Your task to perform on an android device: Go to privacy settings Image 0: 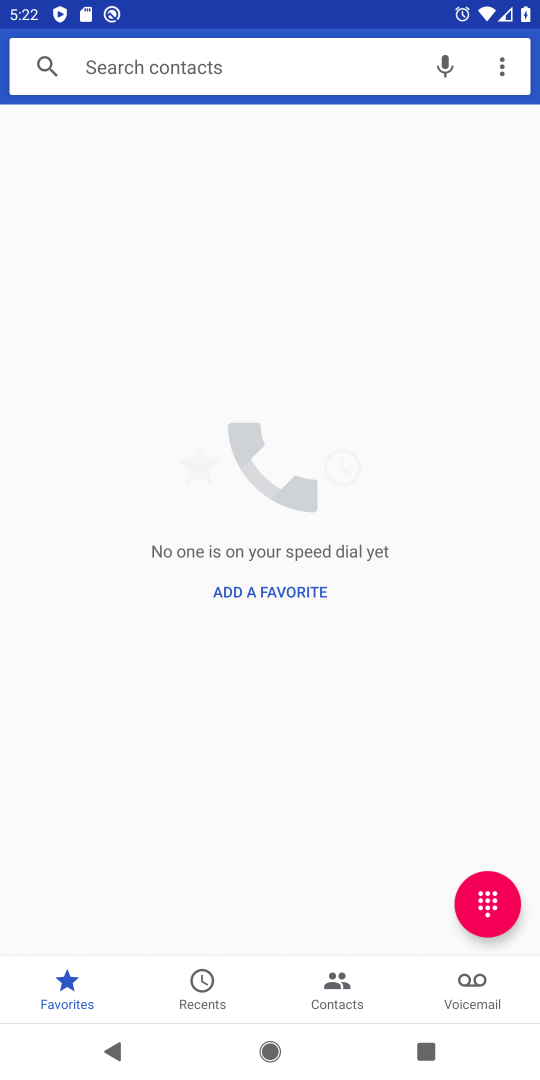
Step 0: press home button
Your task to perform on an android device: Go to privacy settings Image 1: 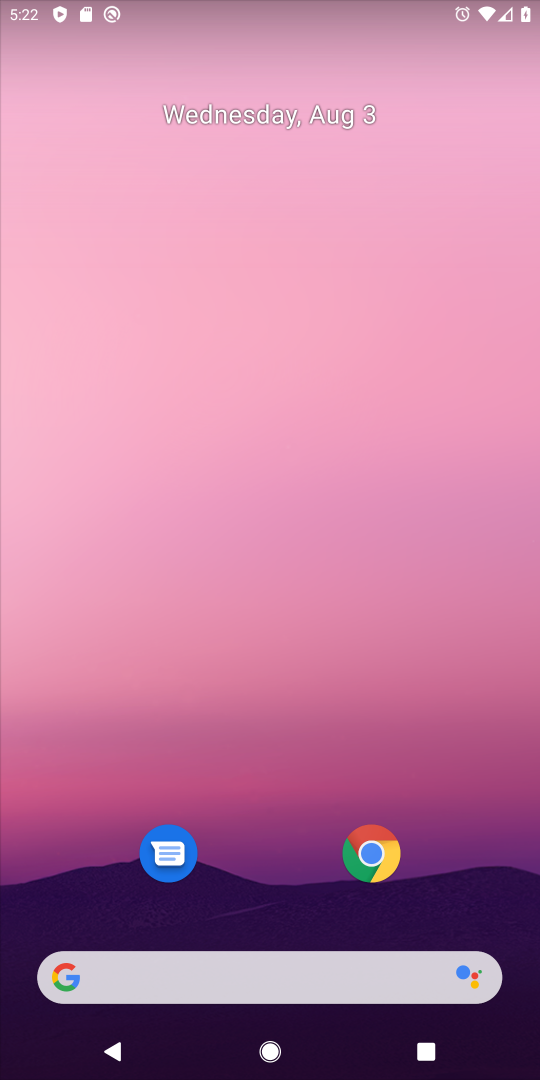
Step 1: drag from (458, 862) to (419, 353)
Your task to perform on an android device: Go to privacy settings Image 2: 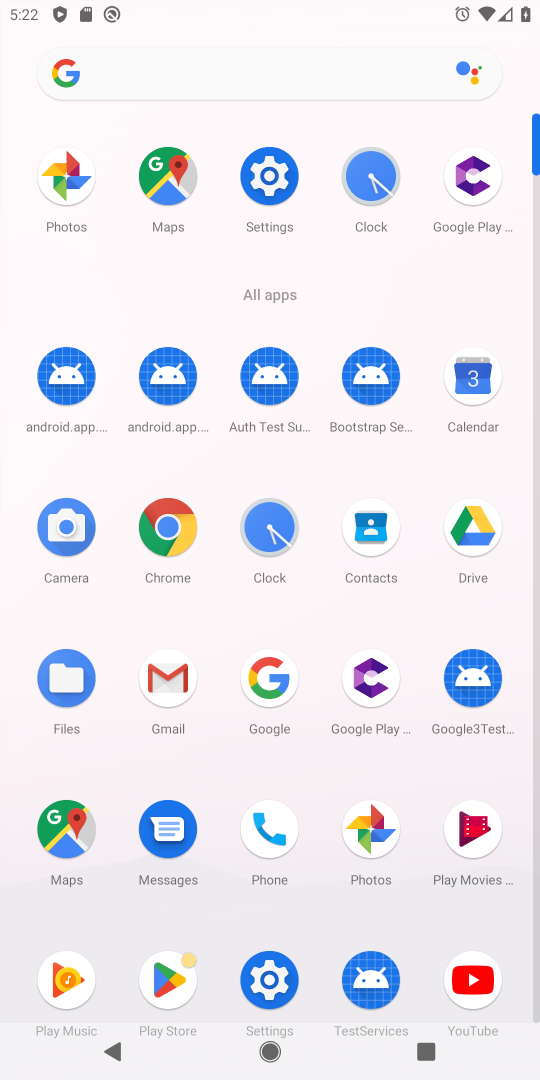
Step 2: click (275, 979)
Your task to perform on an android device: Go to privacy settings Image 3: 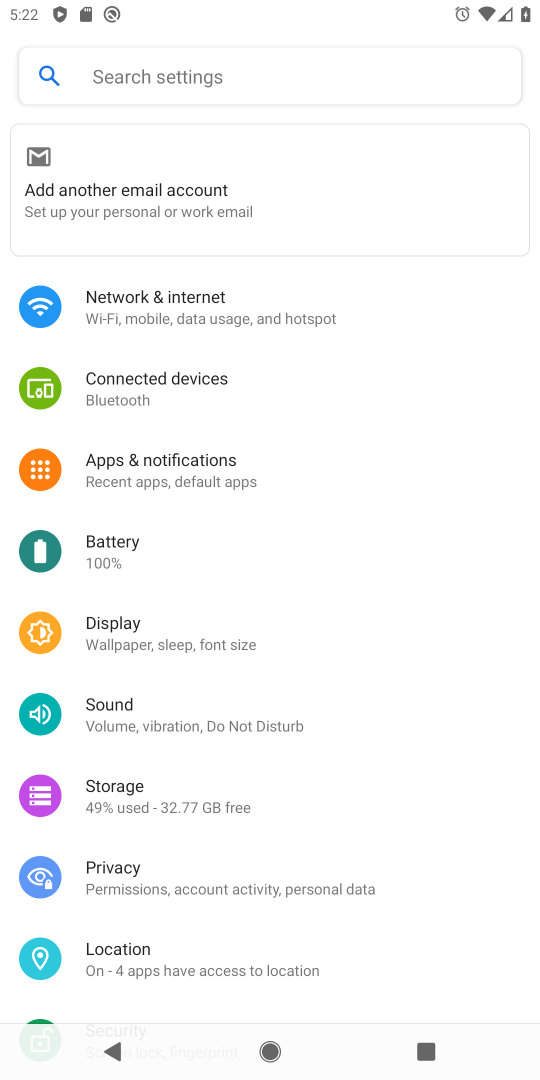
Step 3: click (179, 871)
Your task to perform on an android device: Go to privacy settings Image 4: 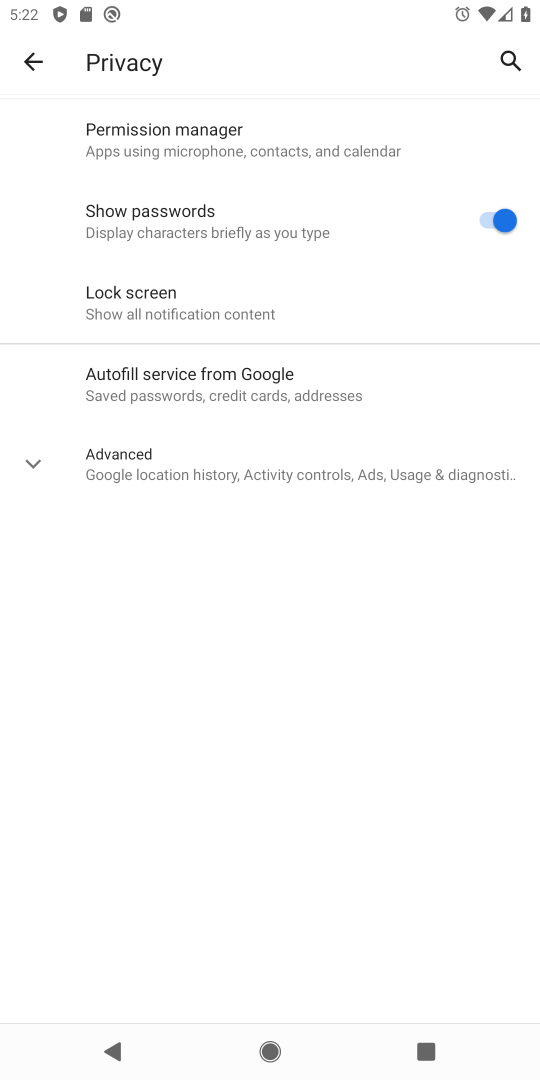
Step 4: task complete